Your task to perform on an android device: install app "Venmo" Image 0: 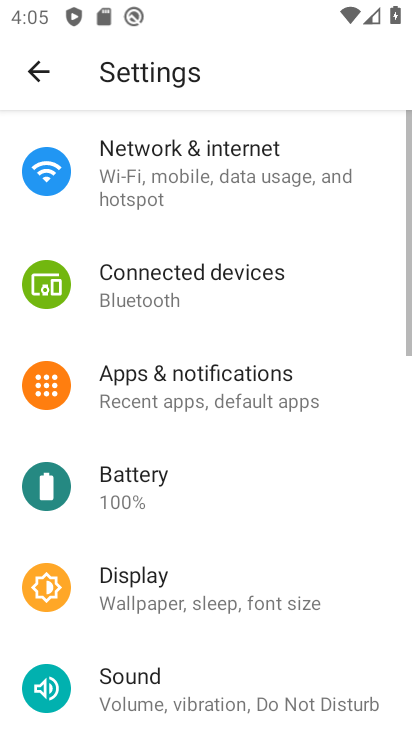
Step 0: press home button
Your task to perform on an android device: install app "Venmo" Image 1: 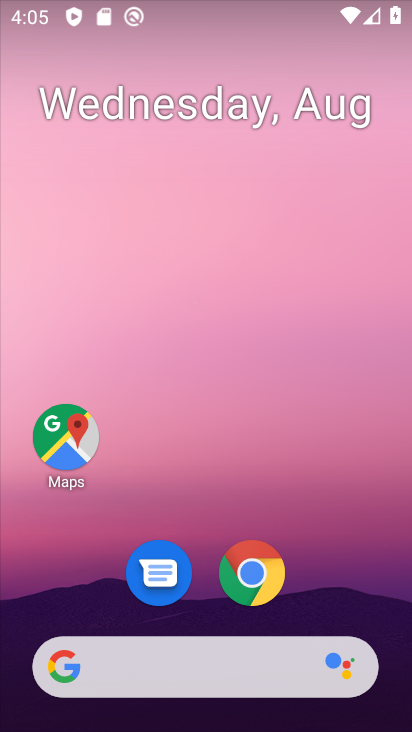
Step 1: drag from (228, 365) to (254, 58)
Your task to perform on an android device: install app "Venmo" Image 2: 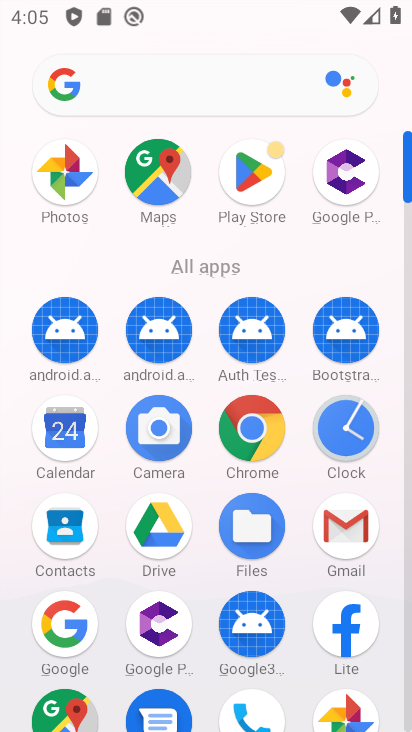
Step 2: click (245, 157)
Your task to perform on an android device: install app "Venmo" Image 3: 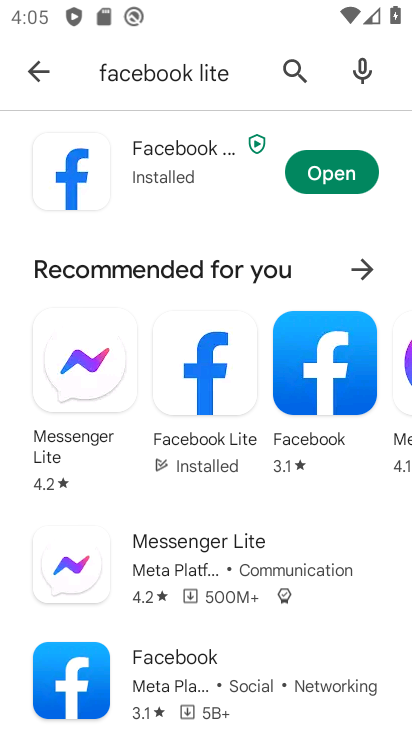
Step 3: click (297, 70)
Your task to perform on an android device: install app "Venmo" Image 4: 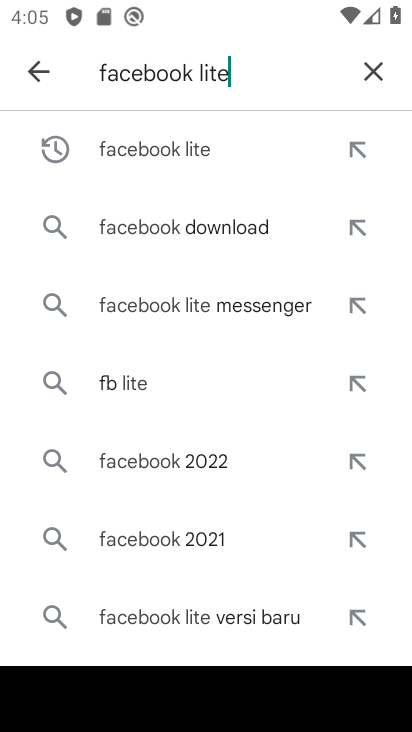
Step 4: click (367, 66)
Your task to perform on an android device: install app "Venmo" Image 5: 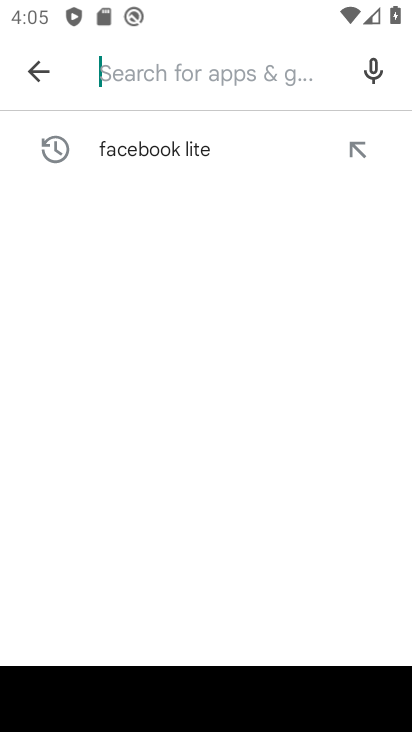
Step 5: type "Venmo"
Your task to perform on an android device: install app "Venmo" Image 6: 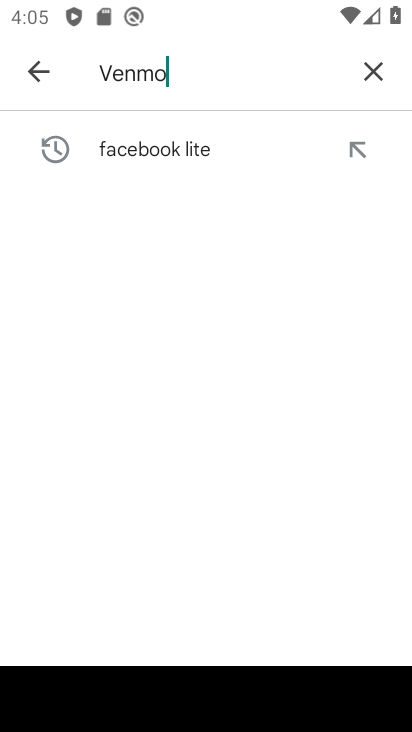
Step 6: type ""
Your task to perform on an android device: install app "Venmo" Image 7: 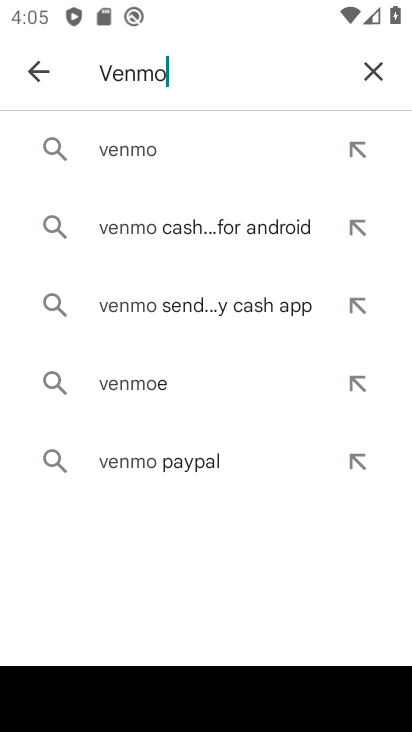
Step 7: click (161, 160)
Your task to perform on an android device: install app "Venmo" Image 8: 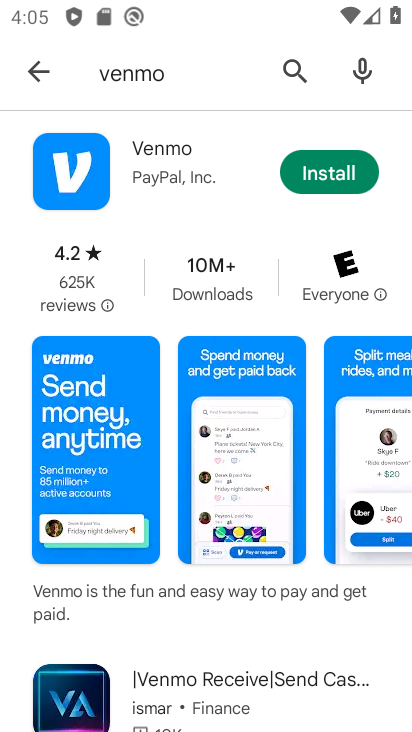
Step 8: click (331, 170)
Your task to perform on an android device: install app "Venmo" Image 9: 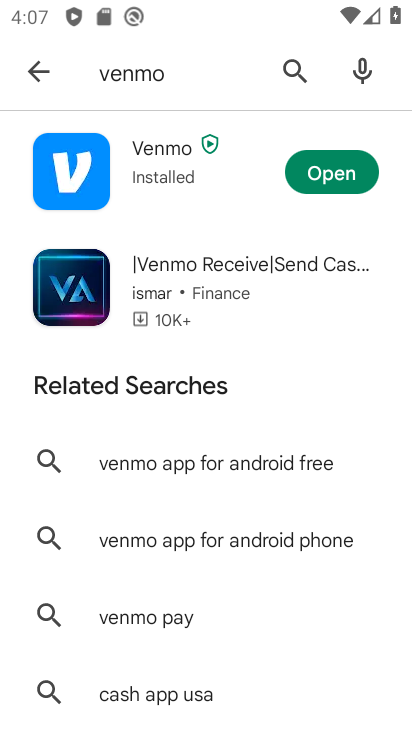
Step 9: task complete